Your task to perform on an android device: star an email in the gmail app Image 0: 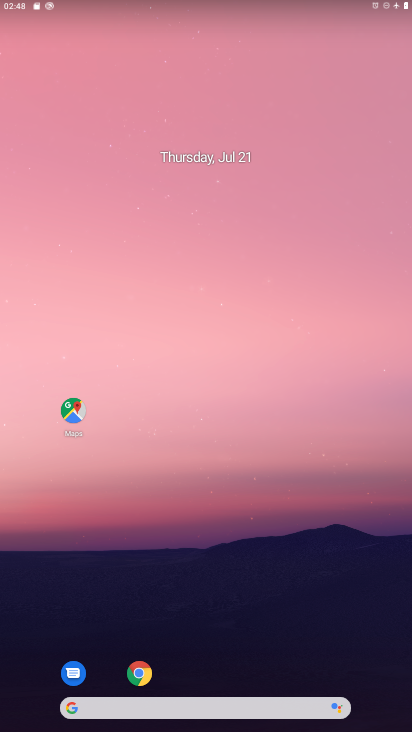
Step 0: drag from (291, 689) to (254, 152)
Your task to perform on an android device: star an email in the gmail app Image 1: 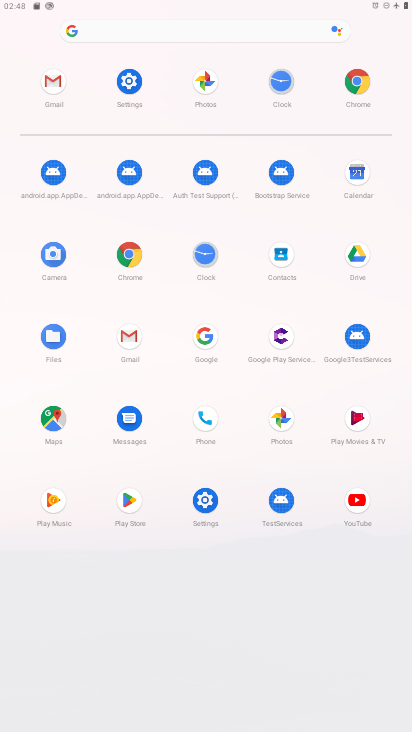
Step 1: click (123, 335)
Your task to perform on an android device: star an email in the gmail app Image 2: 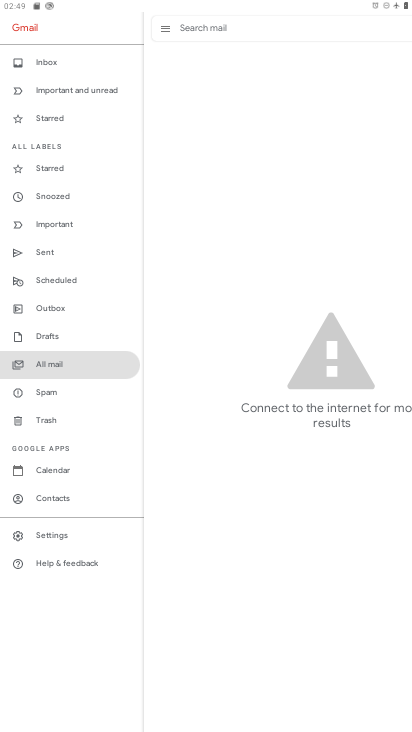
Step 2: click (56, 171)
Your task to perform on an android device: star an email in the gmail app Image 3: 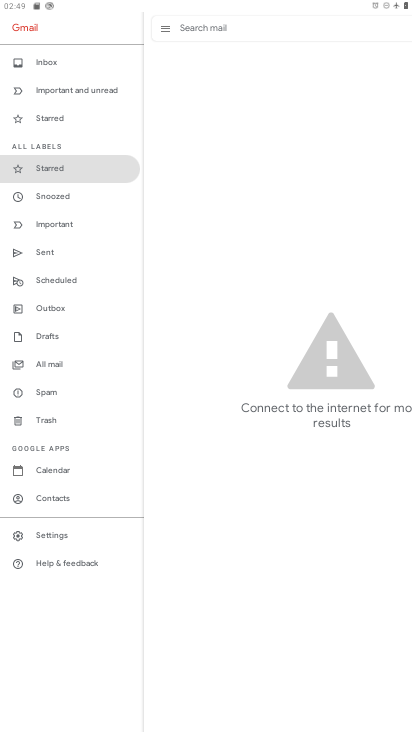
Step 3: task complete